Your task to perform on an android device: turn on sleep mode Image 0: 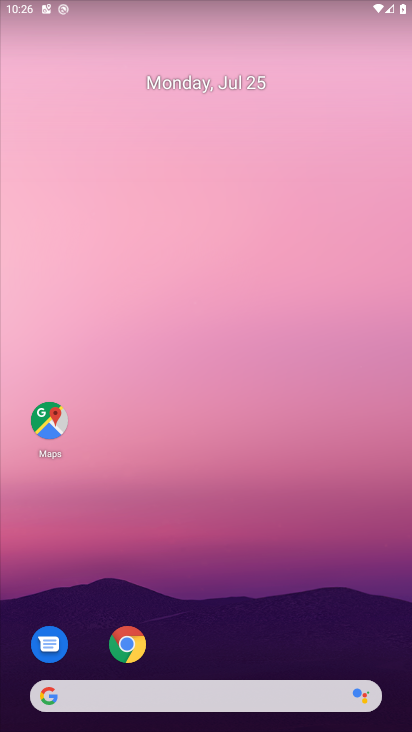
Step 0: drag from (337, 597) to (349, 213)
Your task to perform on an android device: turn on sleep mode Image 1: 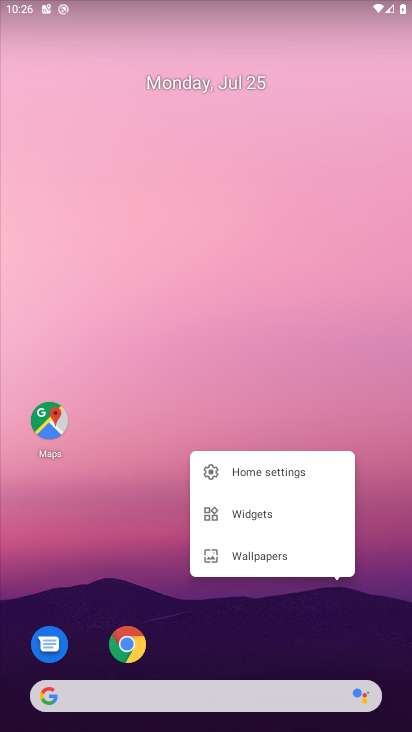
Step 1: click (253, 637)
Your task to perform on an android device: turn on sleep mode Image 2: 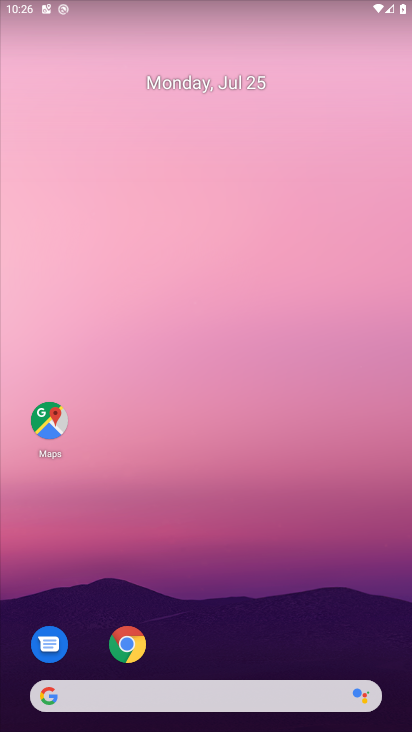
Step 2: drag from (253, 622) to (283, 26)
Your task to perform on an android device: turn on sleep mode Image 3: 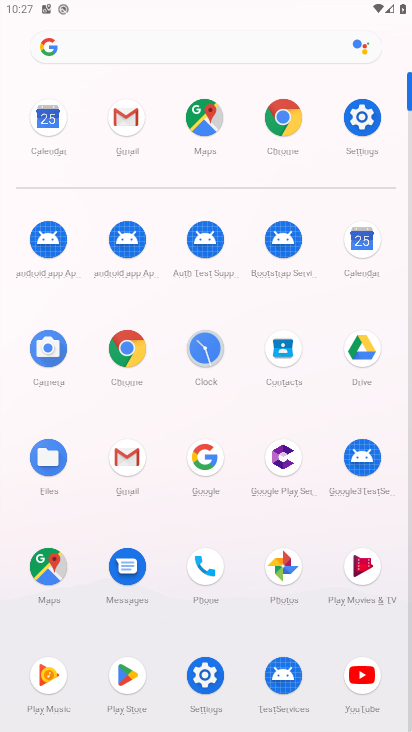
Step 3: click (200, 704)
Your task to perform on an android device: turn on sleep mode Image 4: 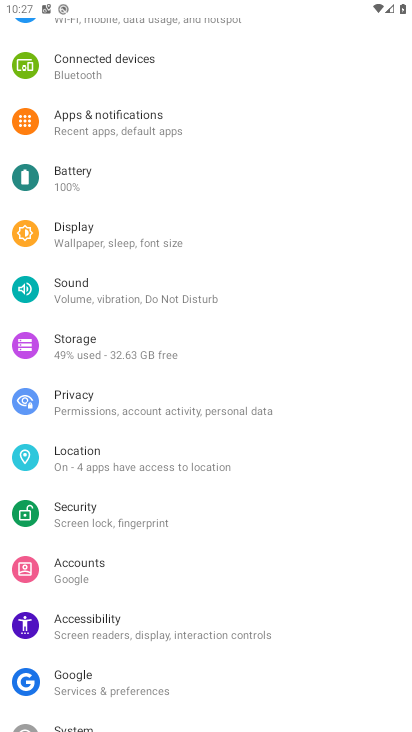
Step 4: click (118, 233)
Your task to perform on an android device: turn on sleep mode Image 5: 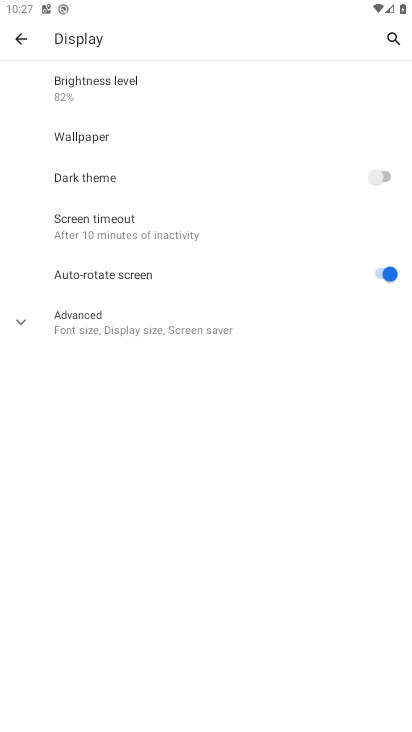
Step 5: task complete